Your task to perform on an android device: turn on airplane mode Image 0: 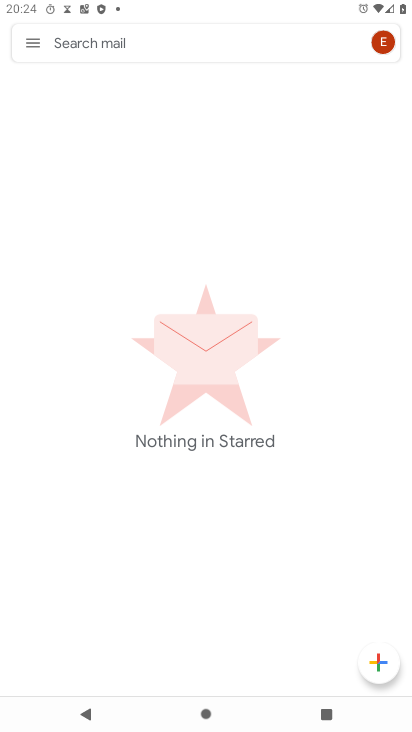
Step 0: press home button
Your task to perform on an android device: turn on airplane mode Image 1: 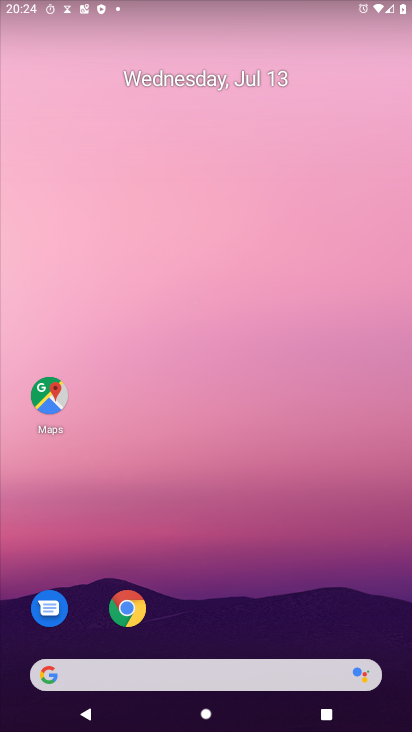
Step 1: drag from (228, 652) to (193, 183)
Your task to perform on an android device: turn on airplane mode Image 2: 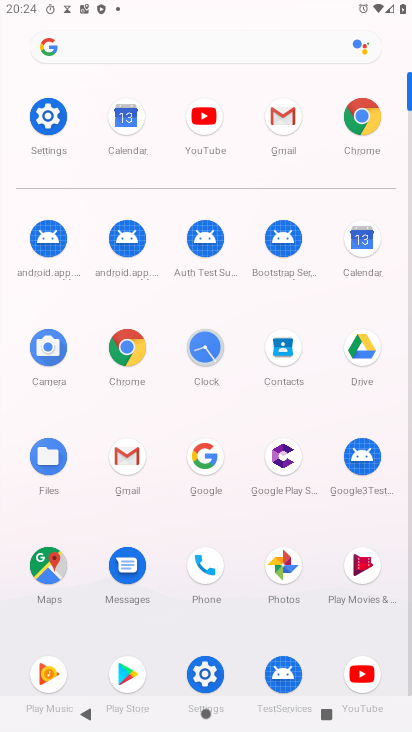
Step 2: click (41, 121)
Your task to perform on an android device: turn on airplane mode Image 3: 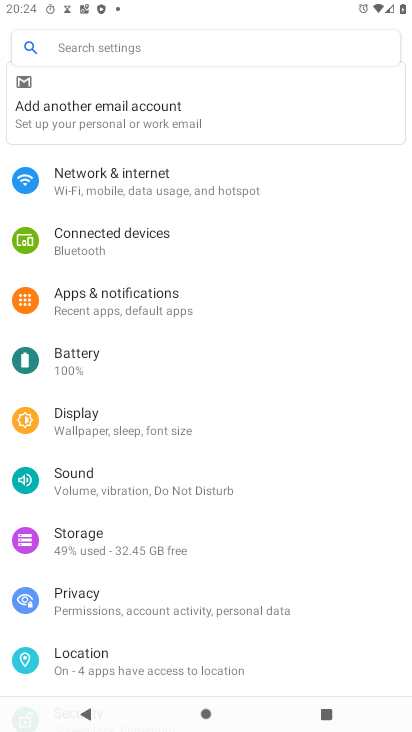
Step 3: click (113, 192)
Your task to perform on an android device: turn on airplane mode Image 4: 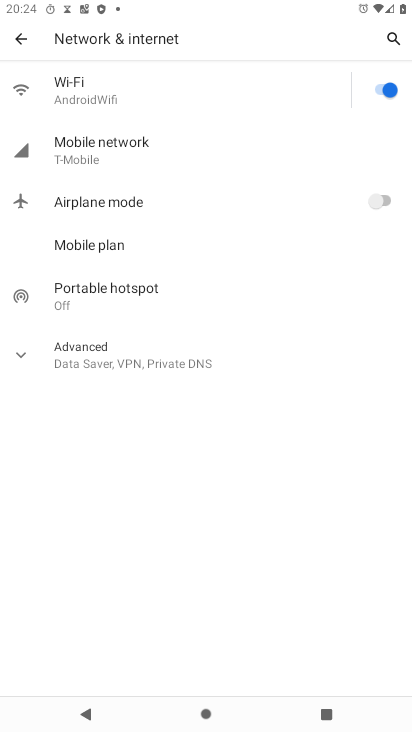
Step 4: click (378, 192)
Your task to perform on an android device: turn on airplane mode Image 5: 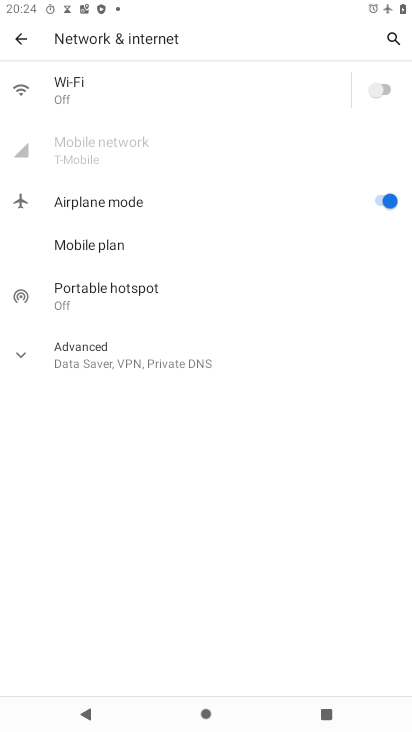
Step 5: task complete